Your task to perform on an android device: Open the map Image 0: 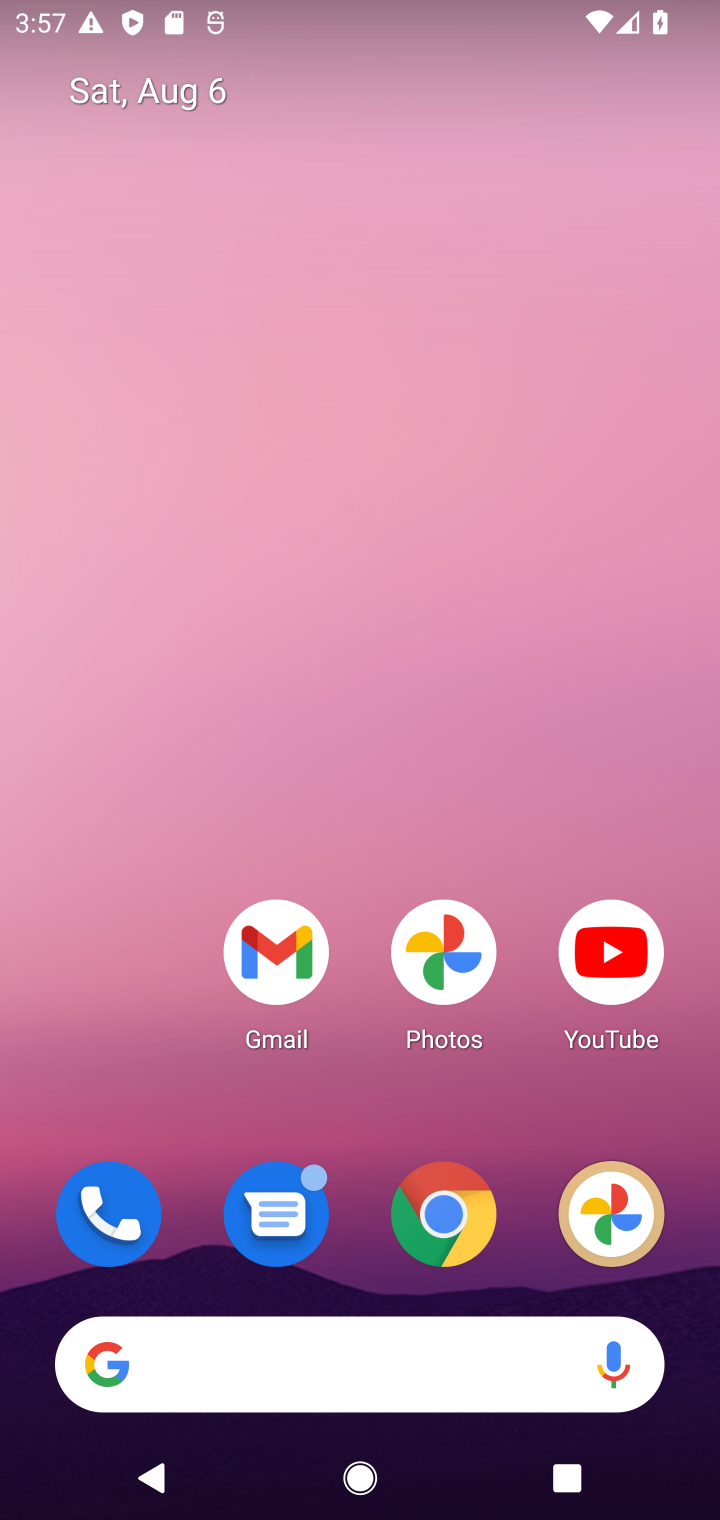
Step 0: drag from (330, 1190) to (278, 69)
Your task to perform on an android device: Open the map Image 1: 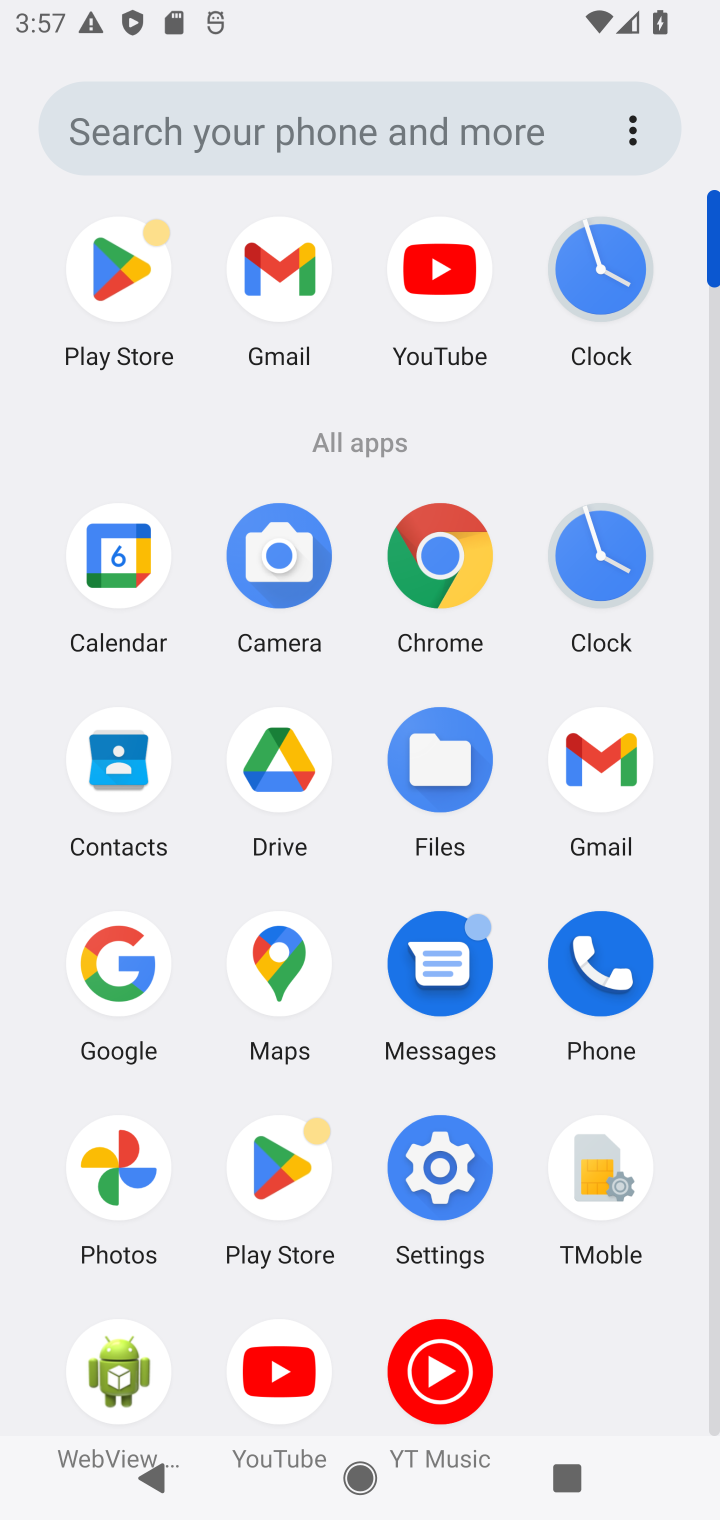
Step 1: click (273, 993)
Your task to perform on an android device: Open the map Image 2: 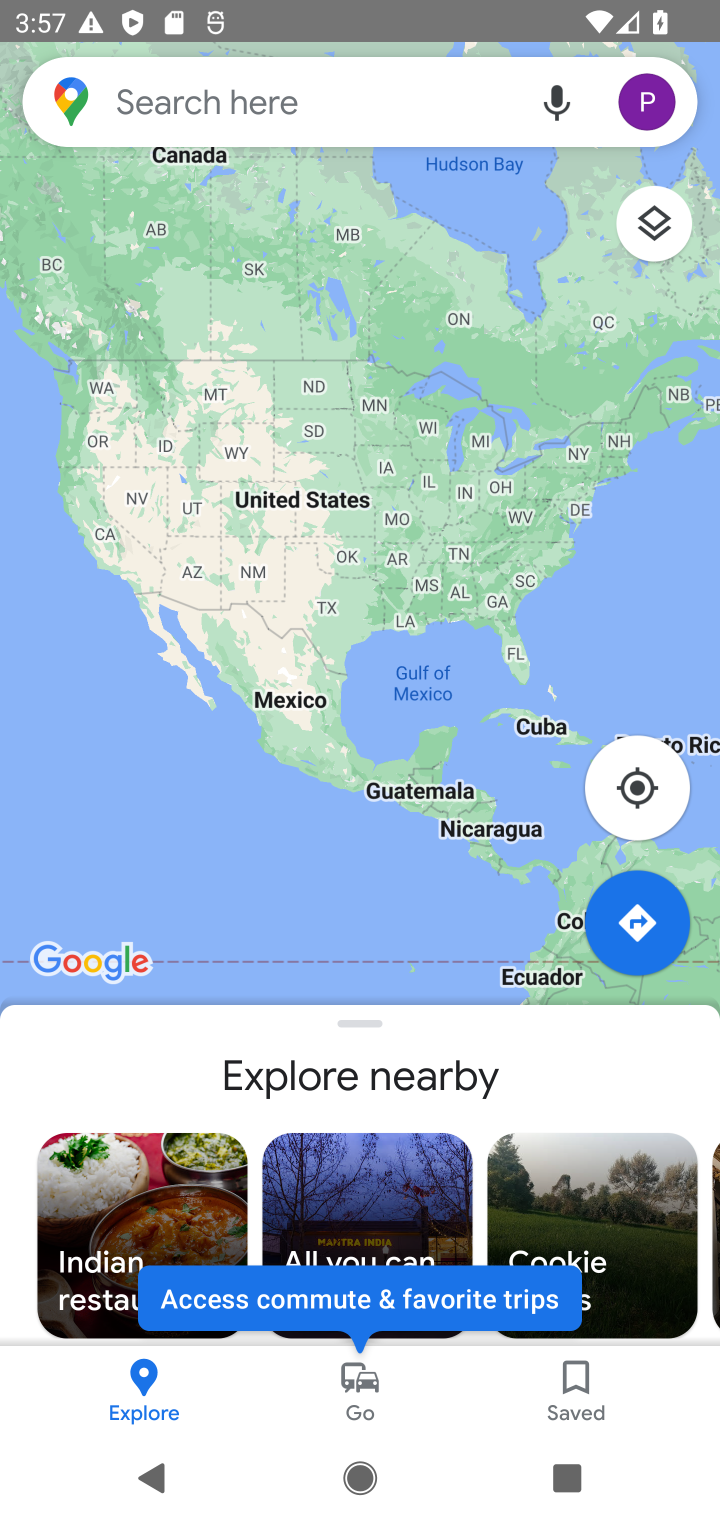
Step 2: task complete